Your task to perform on an android device: Go to battery settings Image 0: 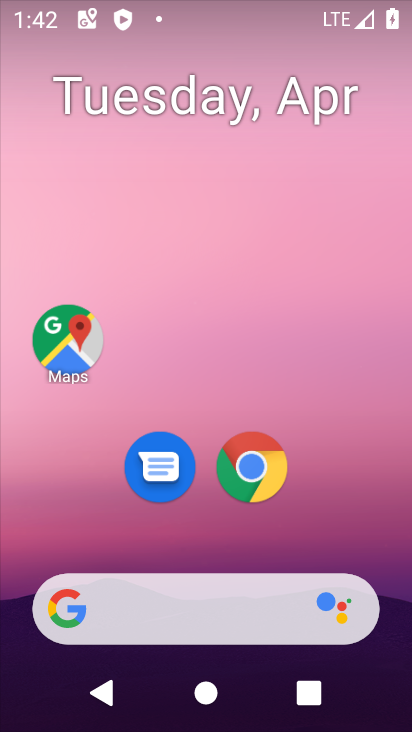
Step 0: drag from (385, 509) to (373, 168)
Your task to perform on an android device: Go to battery settings Image 1: 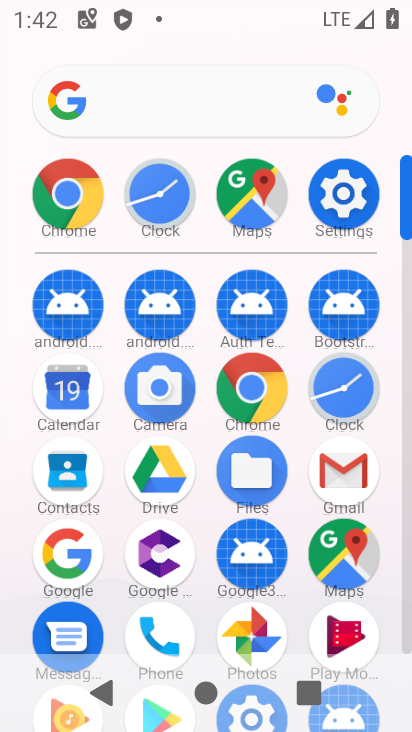
Step 1: click (336, 213)
Your task to perform on an android device: Go to battery settings Image 2: 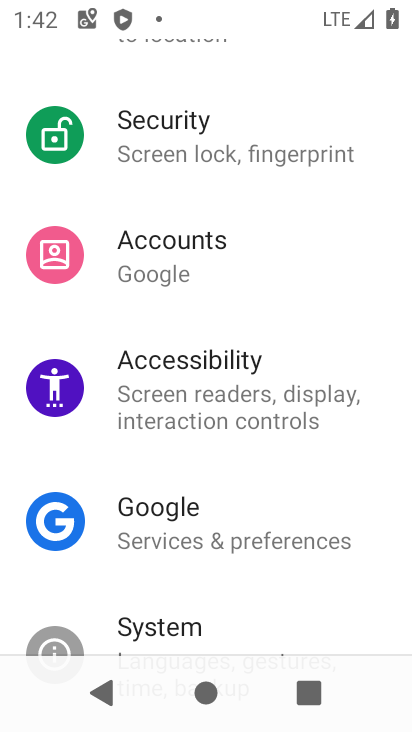
Step 2: drag from (371, 321) to (372, 430)
Your task to perform on an android device: Go to battery settings Image 3: 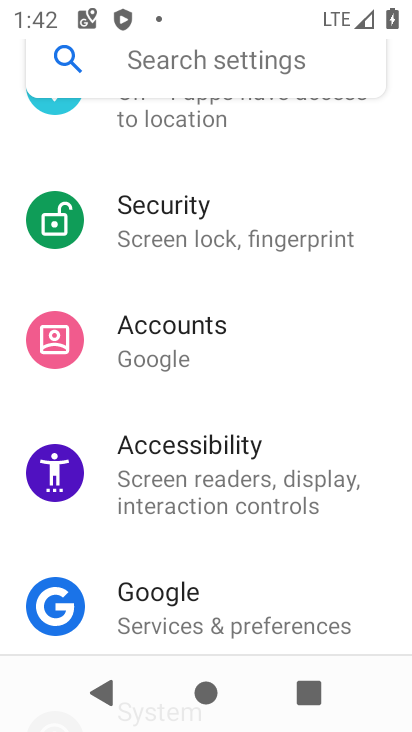
Step 3: drag from (382, 269) to (386, 399)
Your task to perform on an android device: Go to battery settings Image 4: 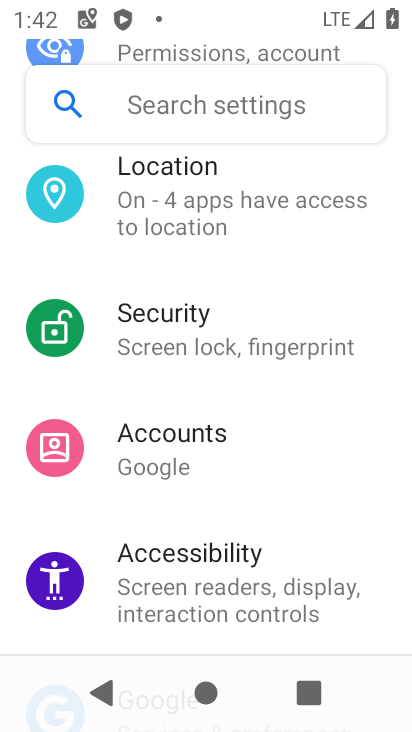
Step 4: drag from (381, 246) to (370, 408)
Your task to perform on an android device: Go to battery settings Image 5: 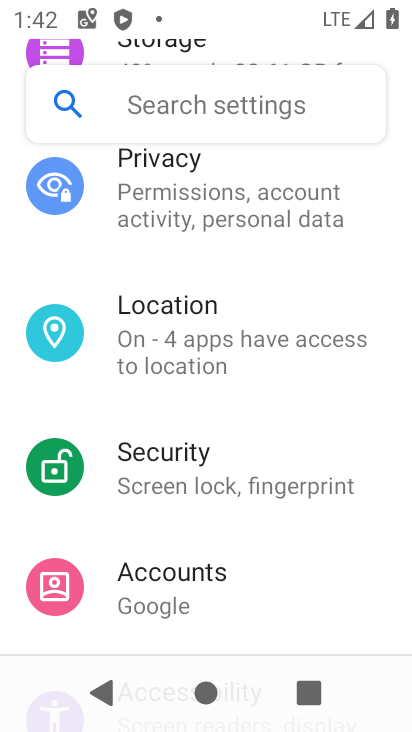
Step 5: drag from (372, 239) to (367, 427)
Your task to perform on an android device: Go to battery settings Image 6: 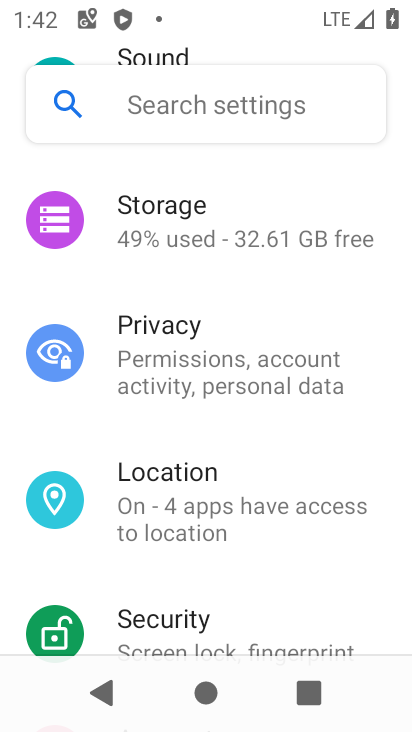
Step 6: drag from (388, 208) to (370, 393)
Your task to perform on an android device: Go to battery settings Image 7: 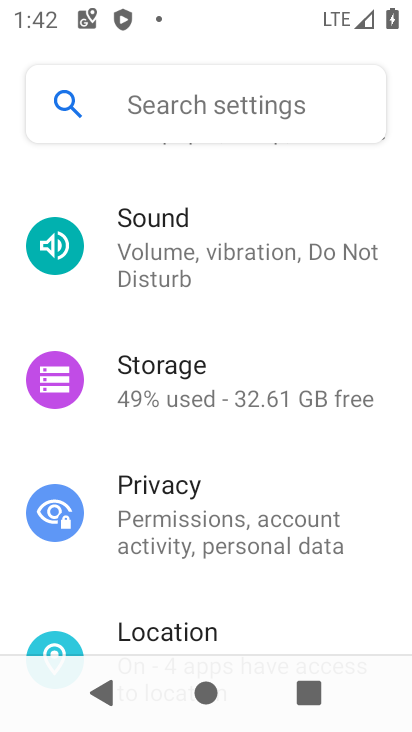
Step 7: drag from (394, 207) to (373, 436)
Your task to perform on an android device: Go to battery settings Image 8: 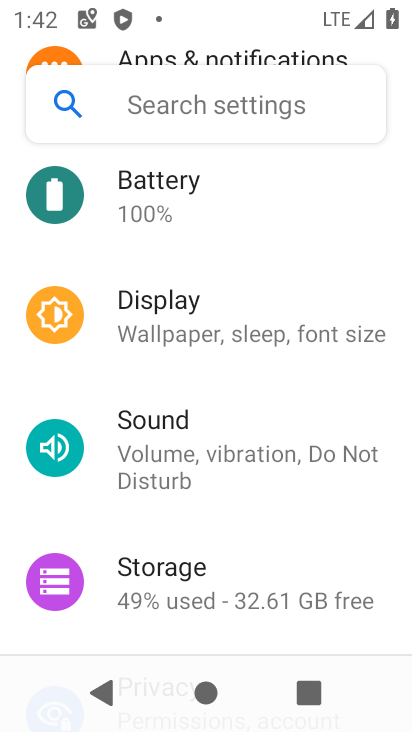
Step 8: drag from (393, 223) to (387, 405)
Your task to perform on an android device: Go to battery settings Image 9: 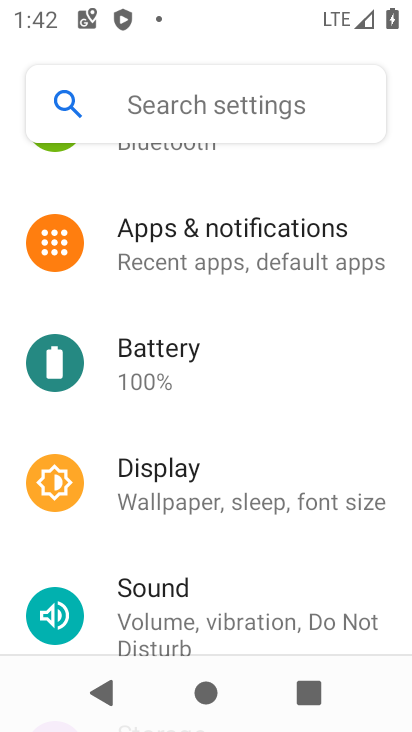
Step 9: click (149, 359)
Your task to perform on an android device: Go to battery settings Image 10: 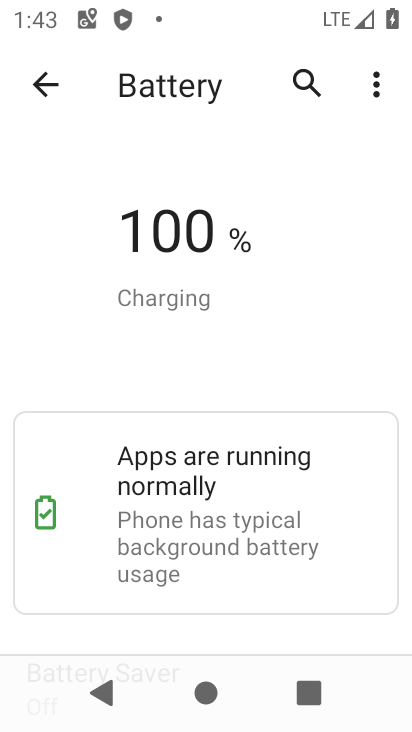
Step 10: task complete